Your task to perform on an android device: Go to notification settings Image 0: 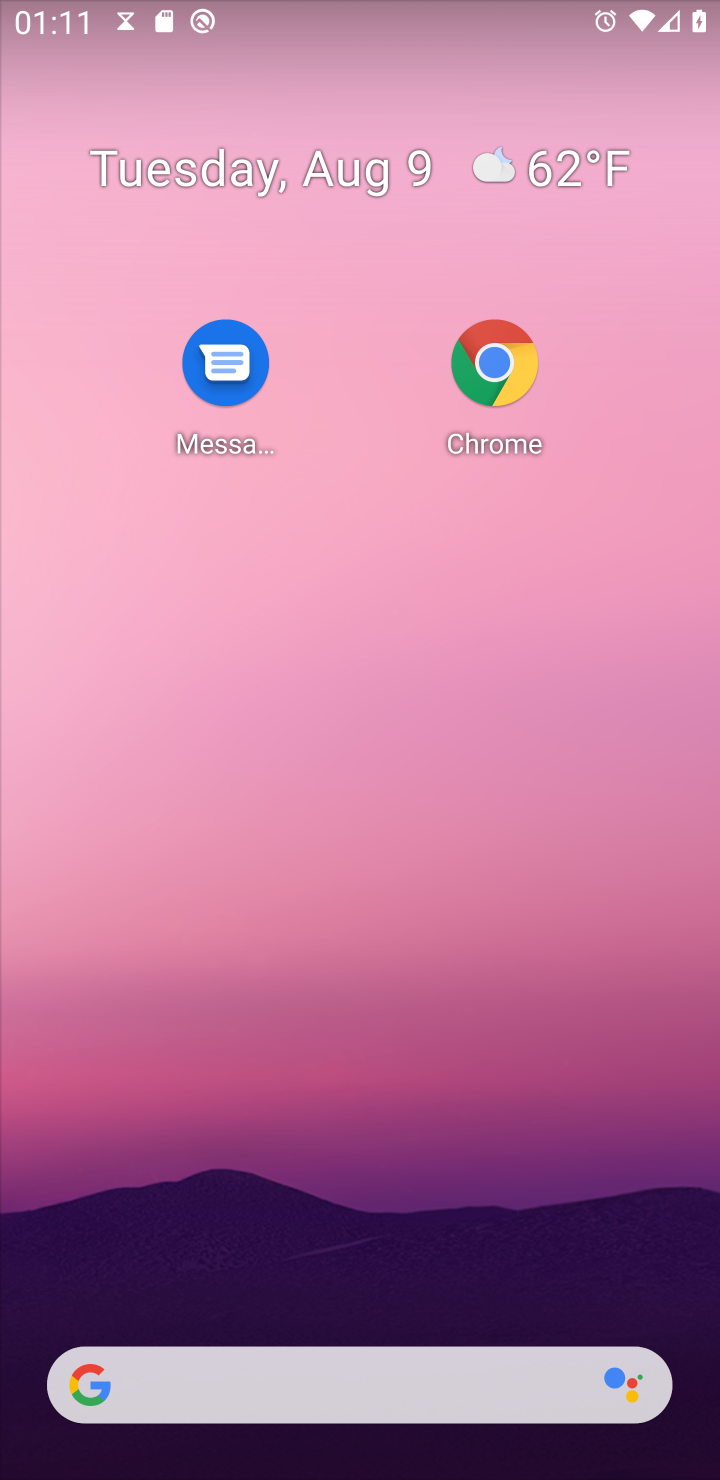
Step 0: drag from (179, 1034) to (329, 271)
Your task to perform on an android device: Go to notification settings Image 1: 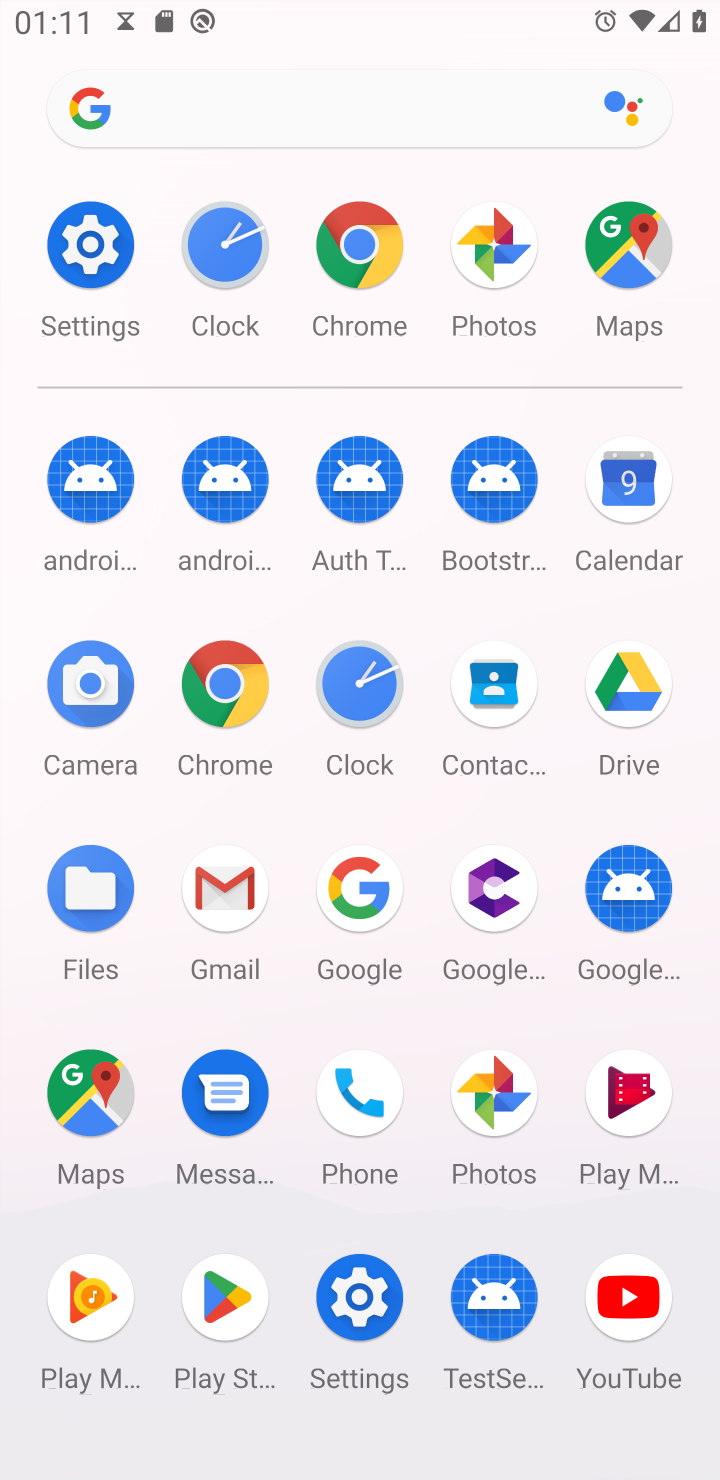
Step 1: click (99, 255)
Your task to perform on an android device: Go to notification settings Image 2: 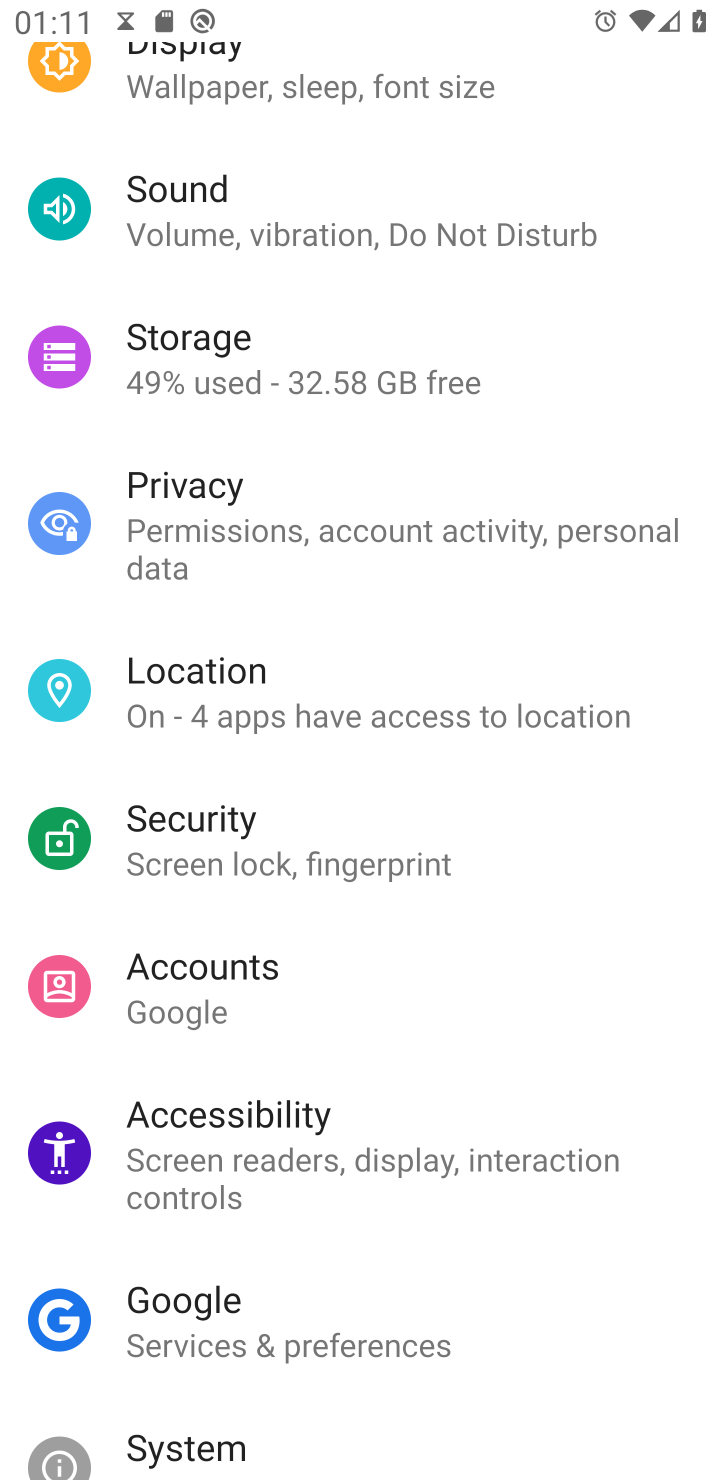
Step 2: drag from (477, 238) to (436, 1228)
Your task to perform on an android device: Go to notification settings Image 3: 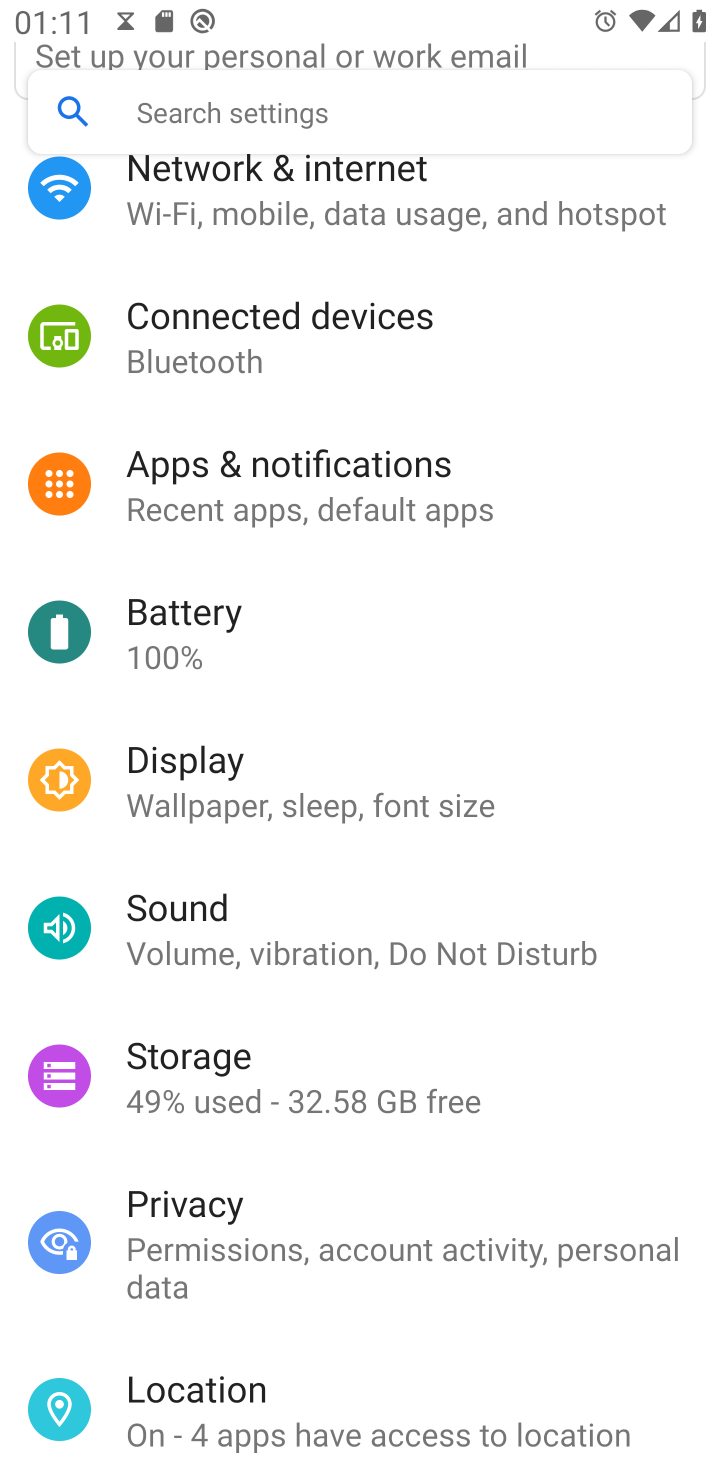
Step 3: click (294, 478)
Your task to perform on an android device: Go to notification settings Image 4: 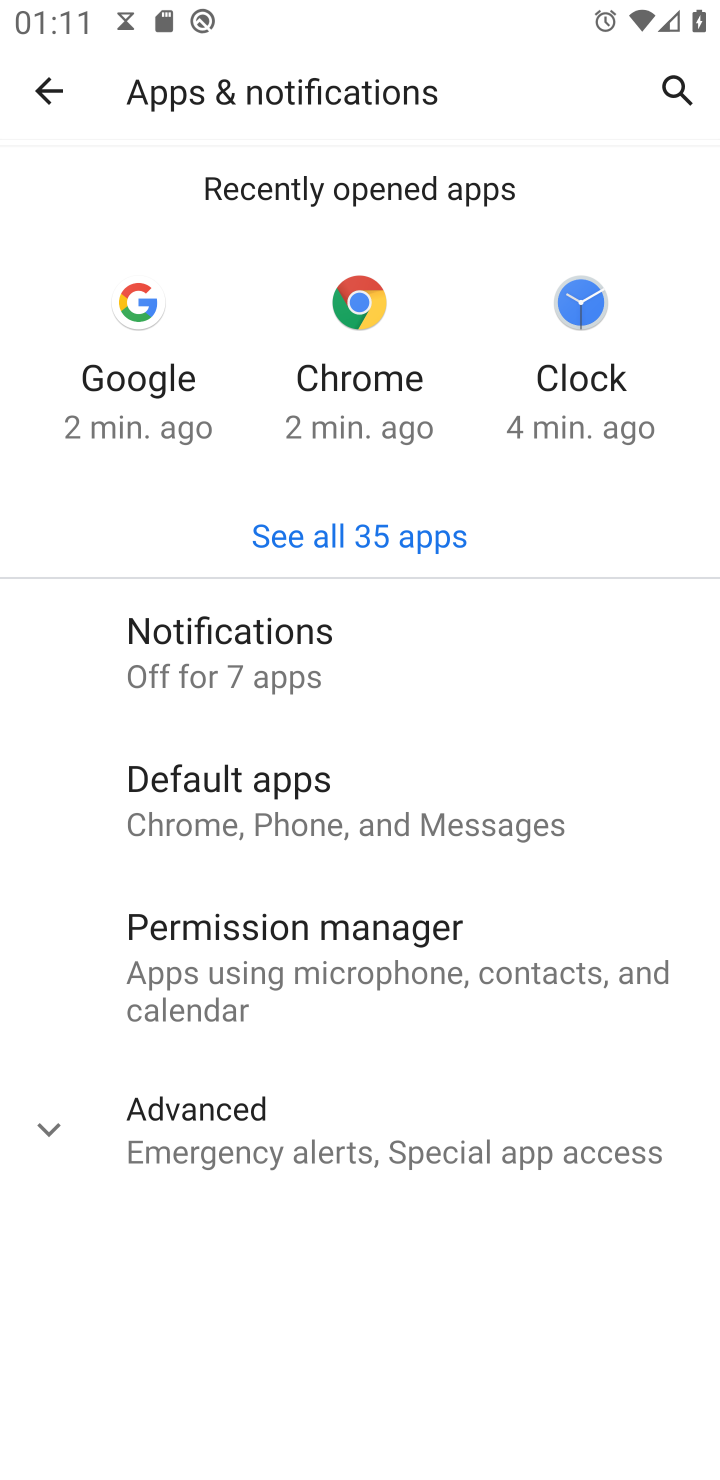
Step 4: click (291, 630)
Your task to perform on an android device: Go to notification settings Image 5: 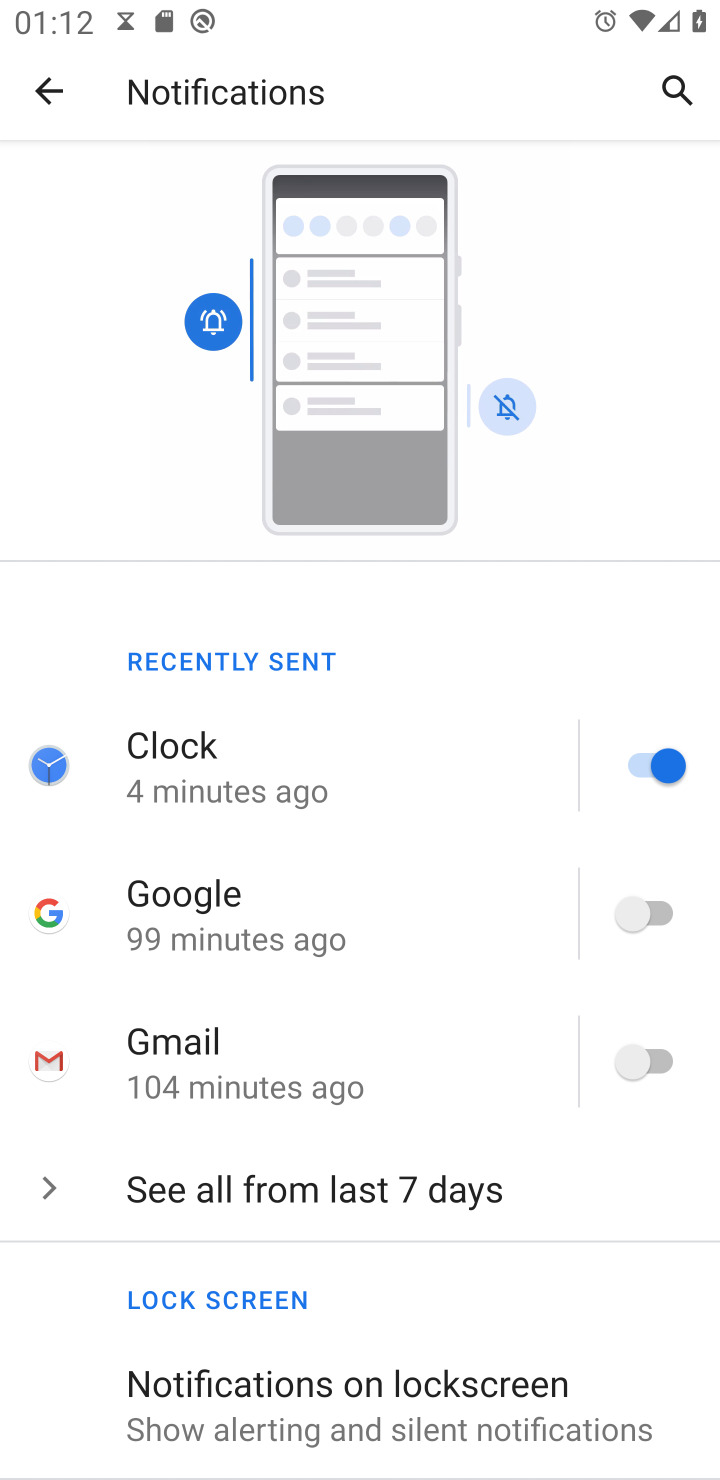
Step 5: task complete